Your task to perform on an android device: open device folders in google photos Image 0: 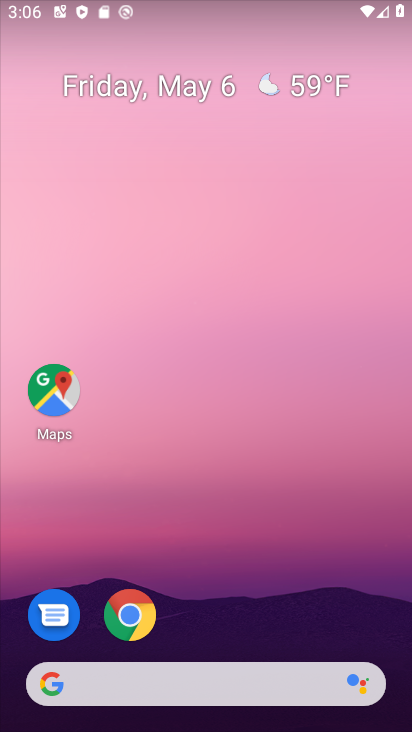
Step 0: drag from (257, 486) to (260, 317)
Your task to perform on an android device: open device folders in google photos Image 1: 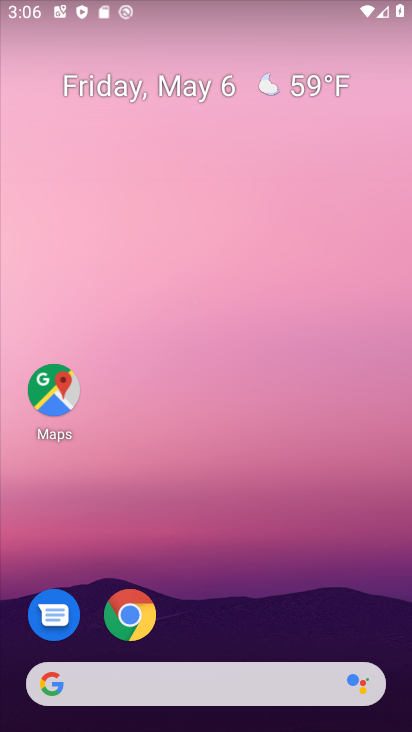
Step 1: drag from (279, 657) to (286, 250)
Your task to perform on an android device: open device folders in google photos Image 2: 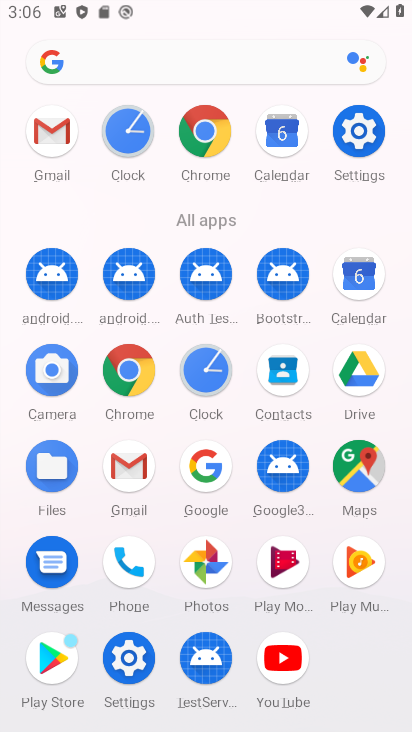
Step 2: click (206, 552)
Your task to perform on an android device: open device folders in google photos Image 3: 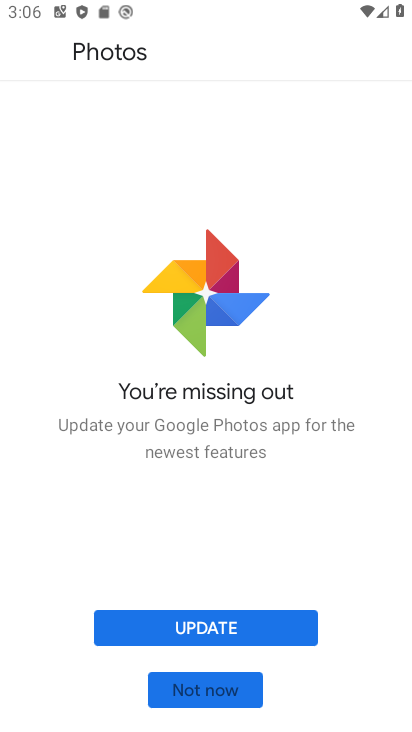
Step 3: click (207, 693)
Your task to perform on an android device: open device folders in google photos Image 4: 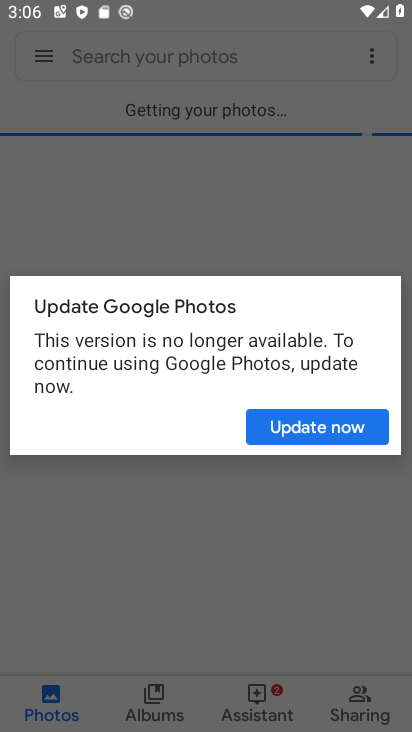
Step 4: click (314, 427)
Your task to perform on an android device: open device folders in google photos Image 5: 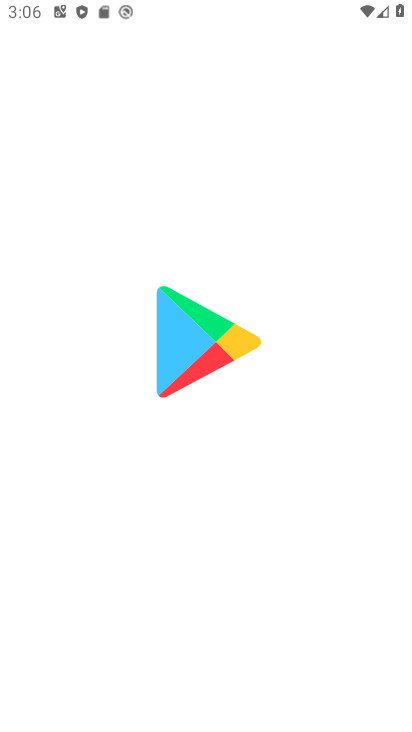
Step 5: press back button
Your task to perform on an android device: open device folders in google photos Image 6: 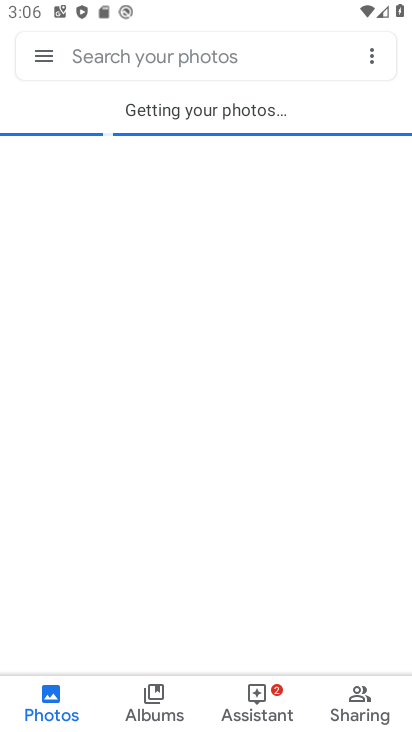
Step 6: click (149, 687)
Your task to perform on an android device: open device folders in google photos Image 7: 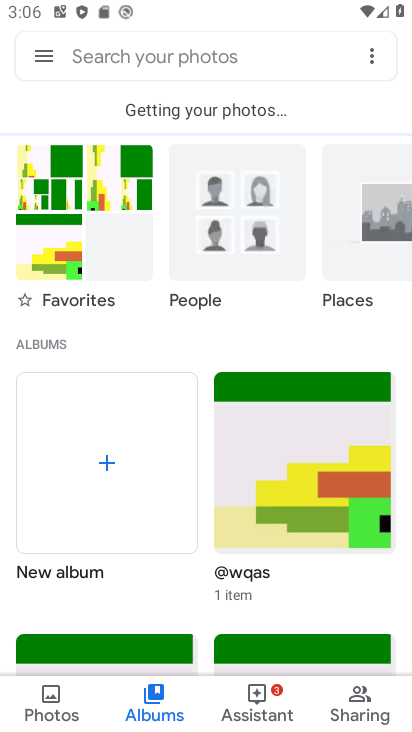
Step 7: click (62, 168)
Your task to perform on an android device: open device folders in google photos Image 8: 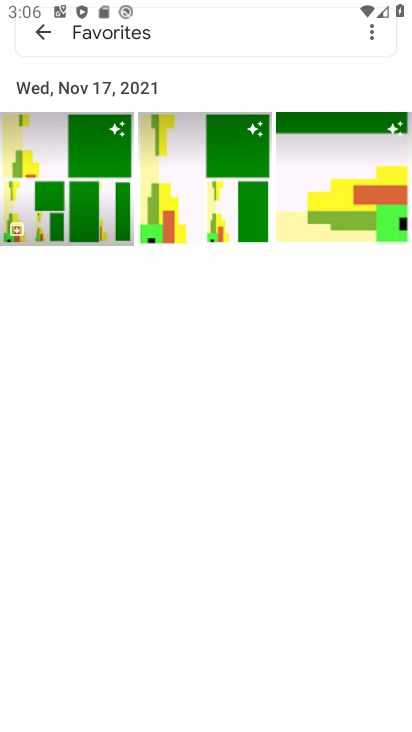
Step 8: task complete